Your task to perform on an android device: Show me the alarms in the clock app Image 0: 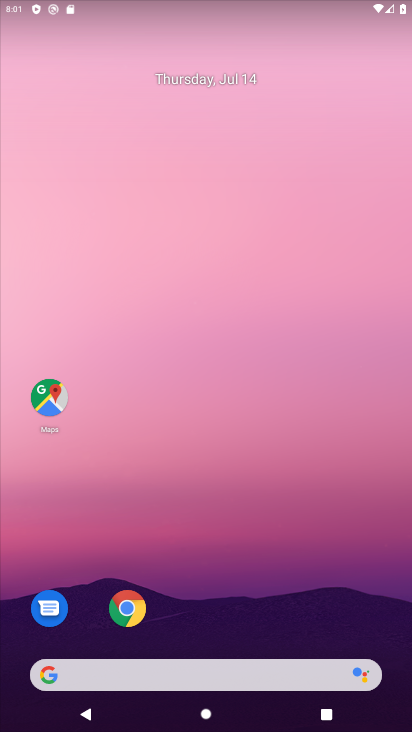
Step 0: drag from (252, 524) to (192, 21)
Your task to perform on an android device: Show me the alarms in the clock app Image 1: 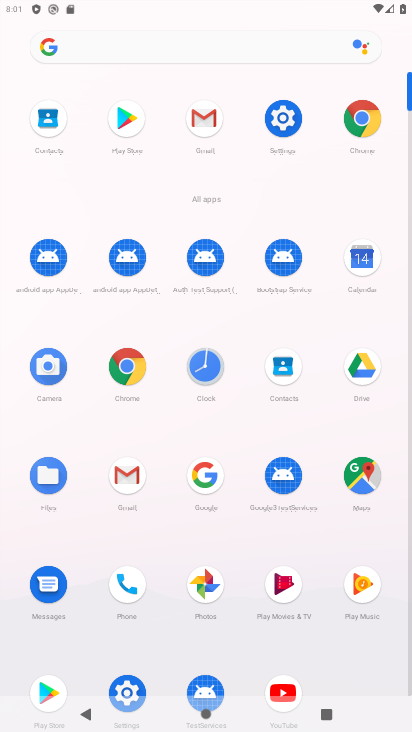
Step 1: click (209, 363)
Your task to perform on an android device: Show me the alarms in the clock app Image 2: 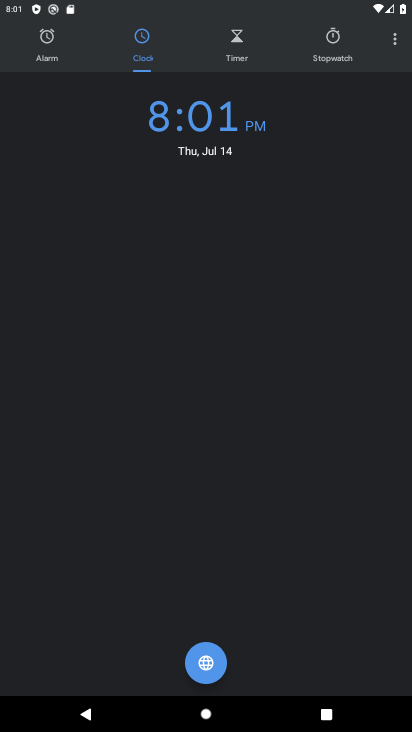
Step 2: click (46, 42)
Your task to perform on an android device: Show me the alarms in the clock app Image 3: 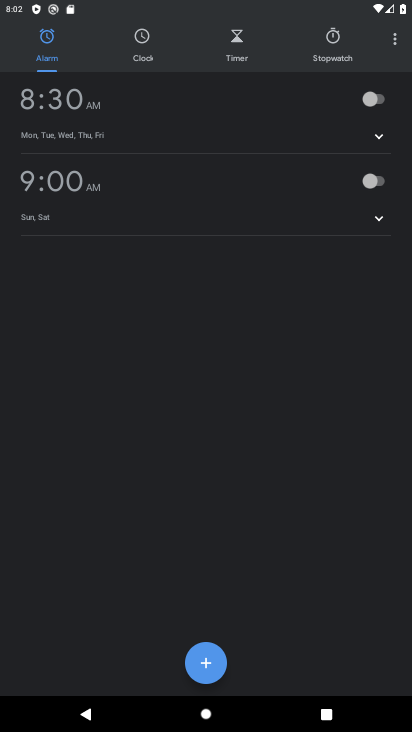
Step 3: task complete